Your task to perform on an android device: What's the weather going to be this weekend? Image 0: 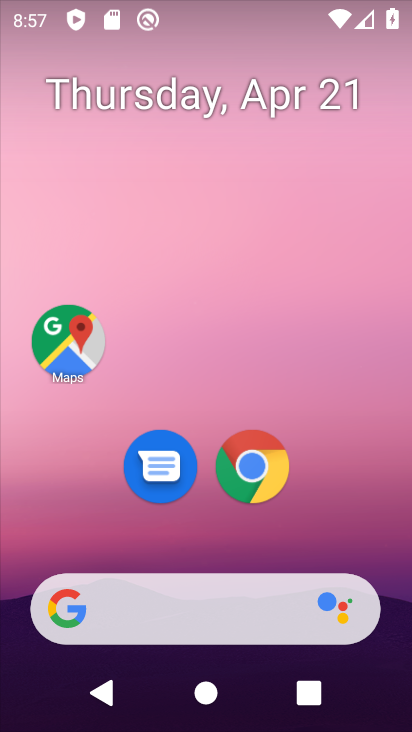
Step 0: drag from (341, 497) to (342, 110)
Your task to perform on an android device: What's the weather going to be this weekend? Image 1: 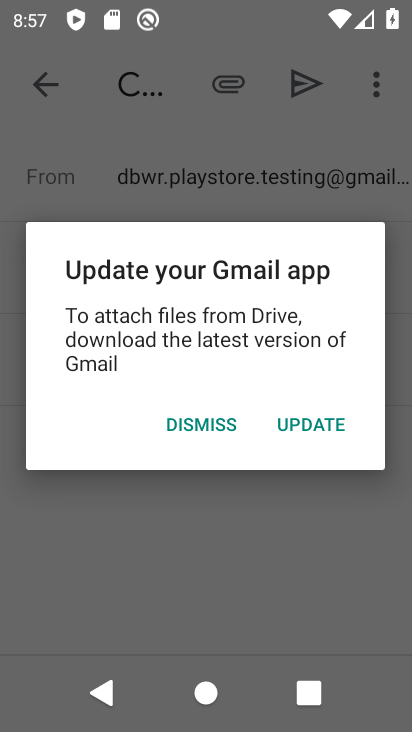
Step 1: drag from (347, 530) to (404, 249)
Your task to perform on an android device: What's the weather going to be this weekend? Image 2: 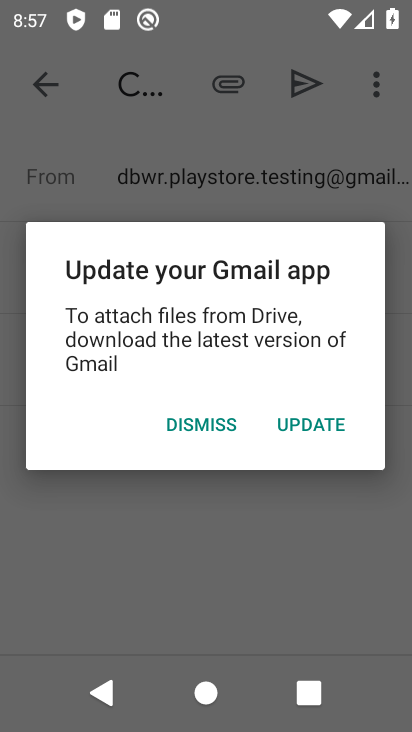
Step 2: press home button
Your task to perform on an android device: What's the weather going to be this weekend? Image 3: 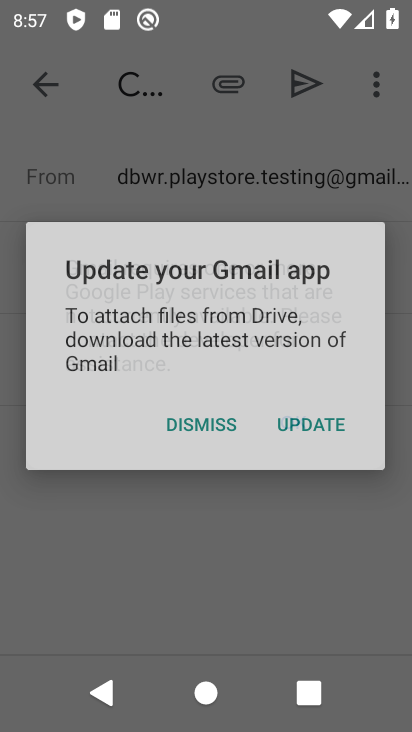
Step 3: drag from (404, 249) to (409, 613)
Your task to perform on an android device: What's the weather going to be this weekend? Image 4: 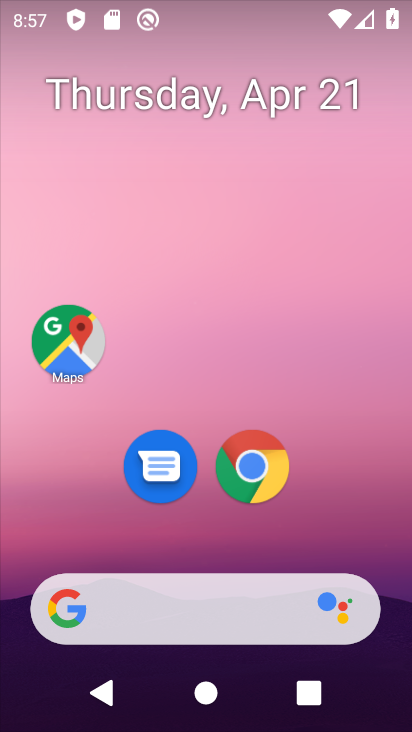
Step 4: drag from (331, 520) to (328, 163)
Your task to perform on an android device: What's the weather going to be this weekend? Image 5: 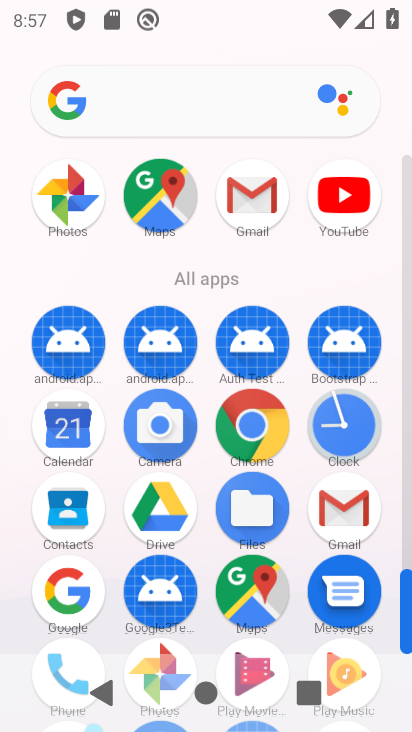
Step 5: click (189, 114)
Your task to perform on an android device: What's the weather going to be this weekend? Image 6: 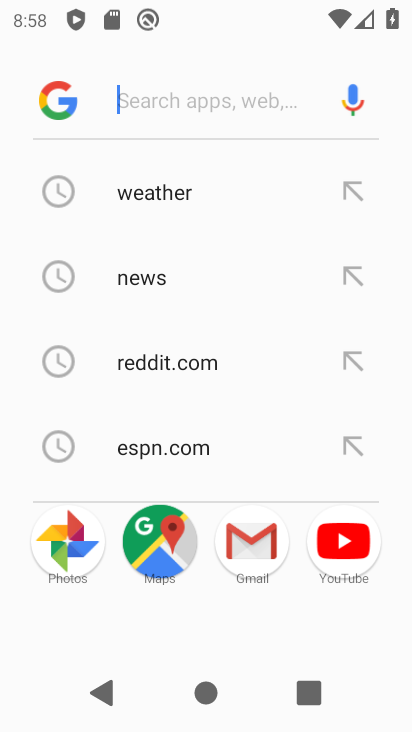
Step 6: type "whats the weather going to be this weekend"
Your task to perform on an android device: What's the weather going to be this weekend? Image 7: 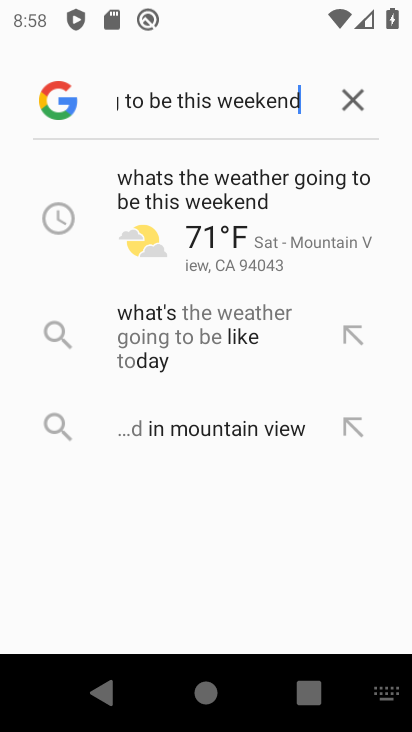
Step 7: click (236, 199)
Your task to perform on an android device: What's the weather going to be this weekend? Image 8: 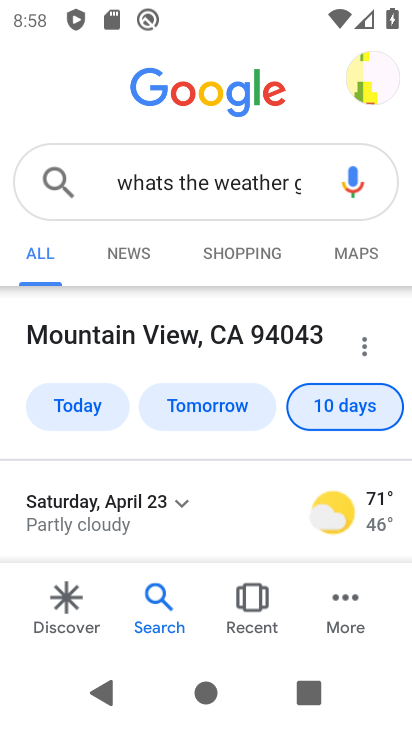
Step 8: task complete